Your task to perform on an android device: toggle priority inbox in the gmail app Image 0: 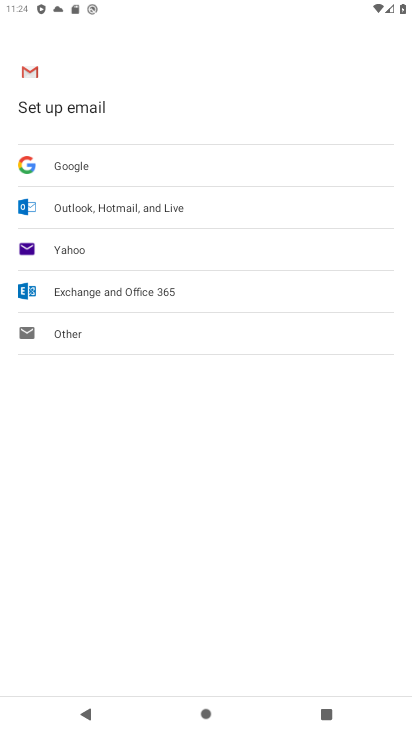
Step 0: press home button
Your task to perform on an android device: toggle priority inbox in the gmail app Image 1: 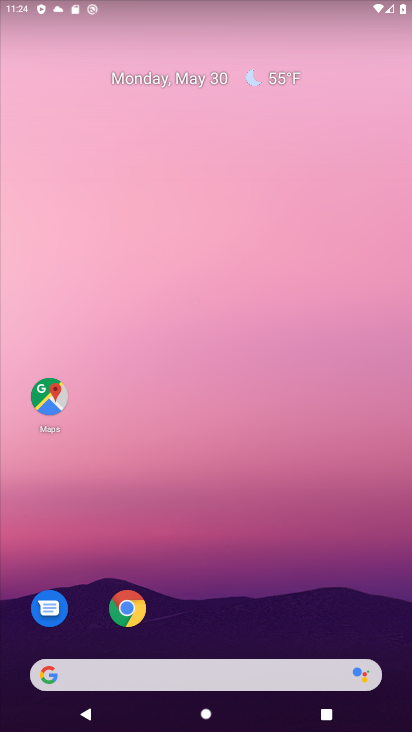
Step 1: drag from (237, 638) to (203, 9)
Your task to perform on an android device: toggle priority inbox in the gmail app Image 2: 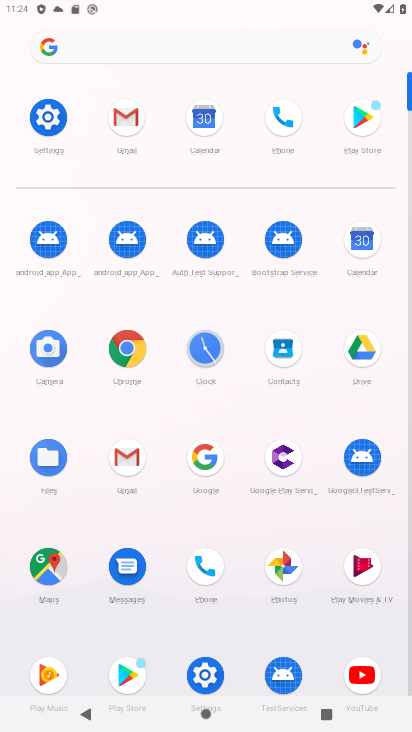
Step 2: click (126, 116)
Your task to perform on an android device: toggle priority inbox in the gmail app Image 3: 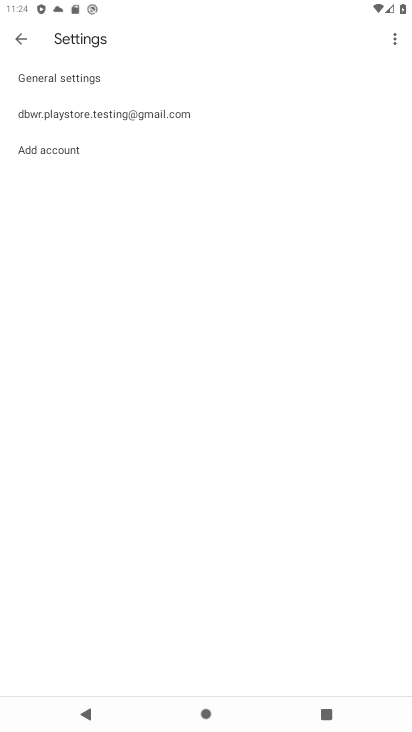
Step 3: click (76, 116)
Your task to perform on an android device: toggle priority inbox in the gmail app Image 4: 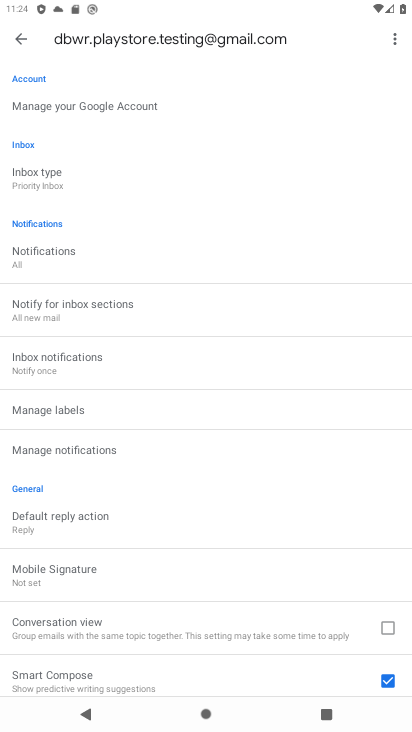
Step 4: click (33, 176)
Your task to perform on an android device: toggle priority inbox in the gmail app Image 5: 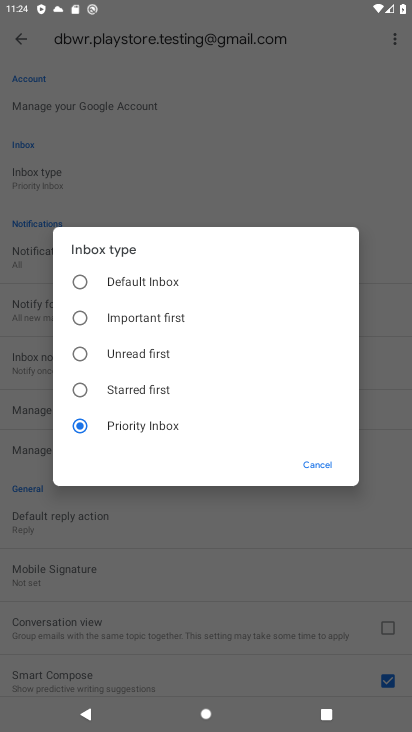
Step 5: click (79, 287)
Your task to perform on an android device: toggle priority inbox in the gmail app Image 6: 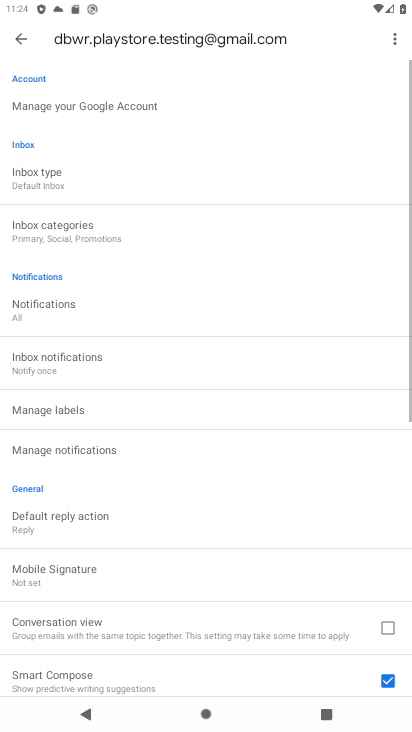
Step 6: task complete